Your task to perform on an android device: Search for vegetarian restaurants on Maps Image 0: 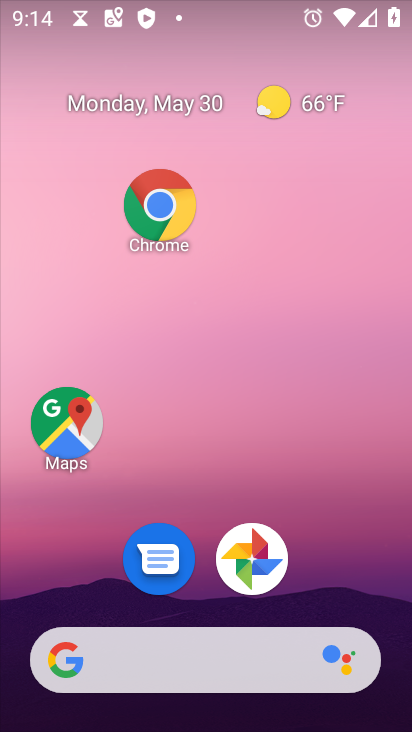
Step 0: drag from (312, 694) to (212, 230)
Your task to perform on an android device: Search for vegetarian restaurants on Maps Image 1: 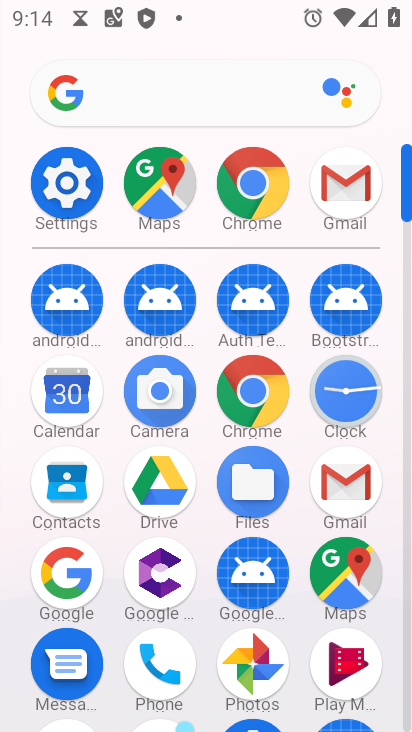
Step 1: click (339, 599)
Your task to perform on an android device: Search for vegetarian restaurants on Maps Image 2: 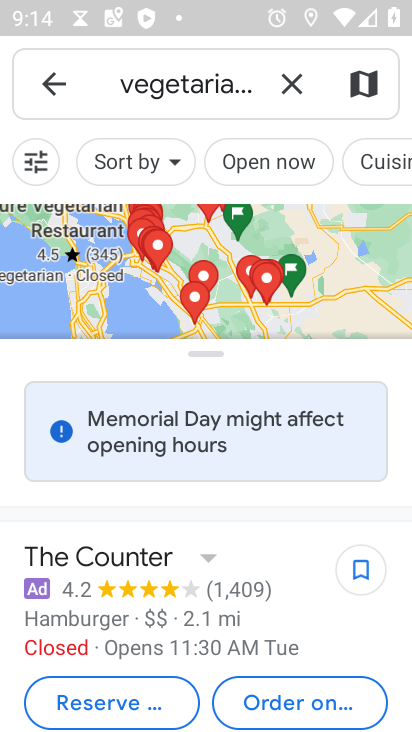
Step 2: press back button
Your task to perform on an android device: Search for vegetarian restaurants on Maps Image 3: 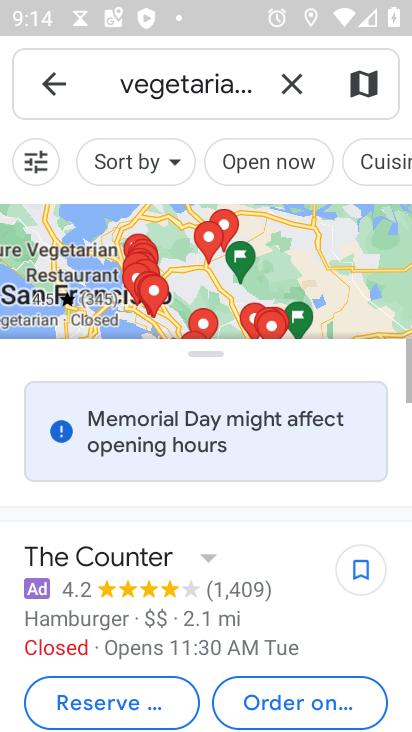
Step 3: press back button
Your task to perform on an android device: Search for vegetarian restaurants on Maps Image 4: 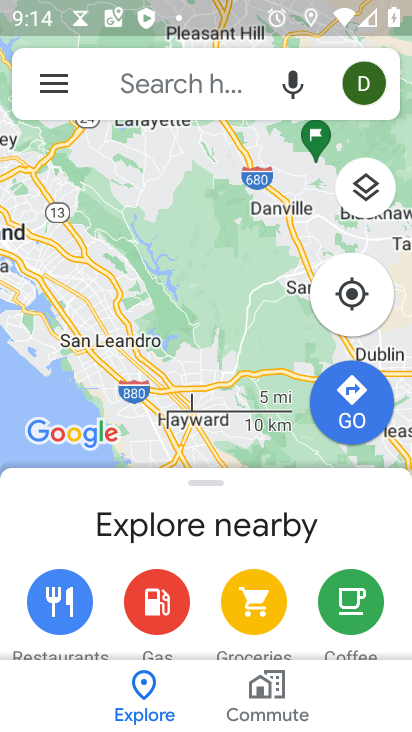
Step 4: press back button
Your task to perform on an android device: Search for vegetarian restaurants on Maps Image 5: 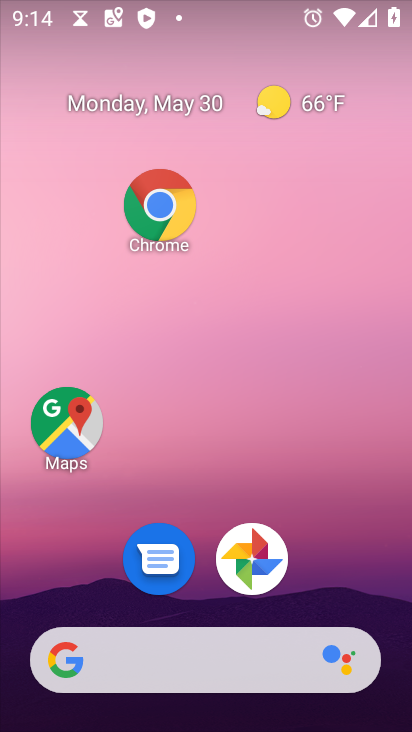
Step 5: drag from (182, 486) to (126, 125)
Your task to perform on an android device: Search for vegetarian restaurants on Maps Image 6: 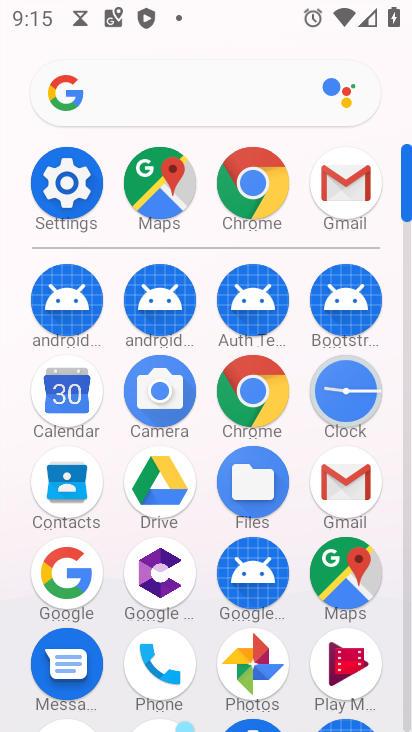
Step 6: click (256, 182)
Your task to perform on an android device: Search for vegetarian restaurants on Maps Image 7: 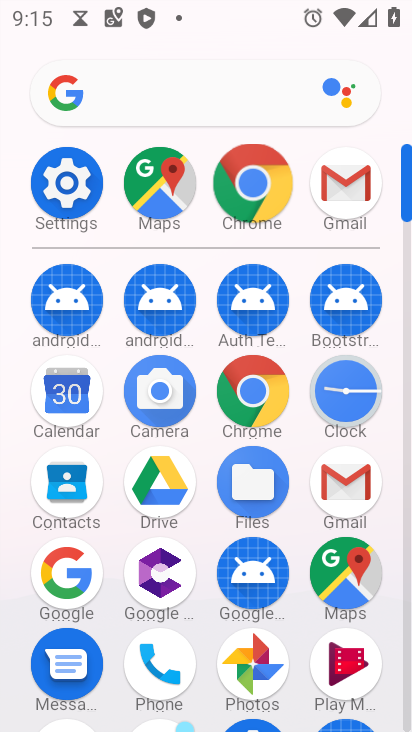
Step 7: click (255, 183)
Your task to perform on an android device: Search for vegetarian restaurants on Maps Image 8: 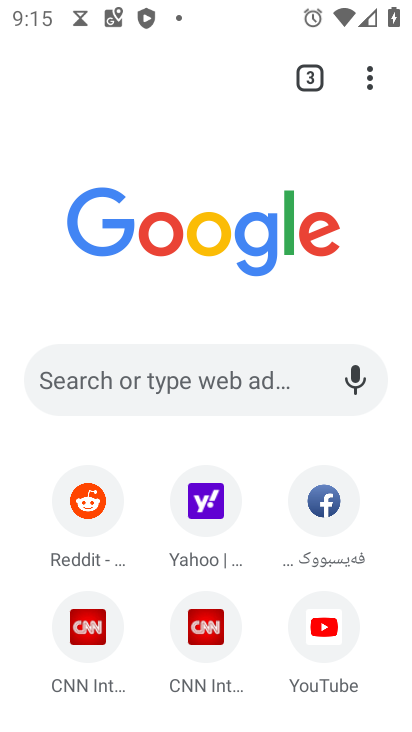
Step 8: press back button
Your task to perform on an android device: Search for vegetarian restaurants on Maps Image 9: 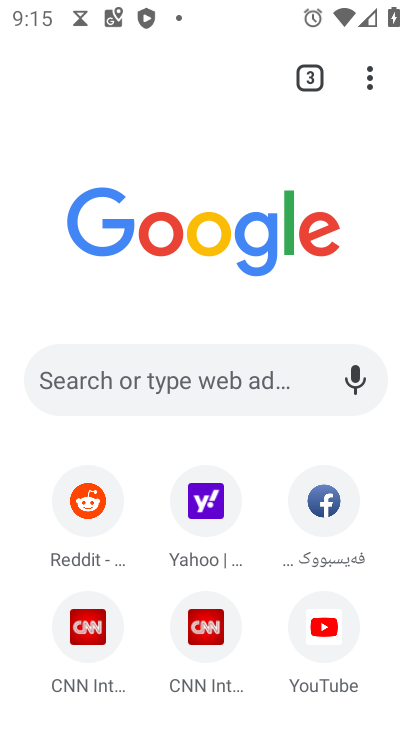
Step 9: press back button
Your task to perform on an android device: Search for vegetarian restaurants on Maps Image 10: 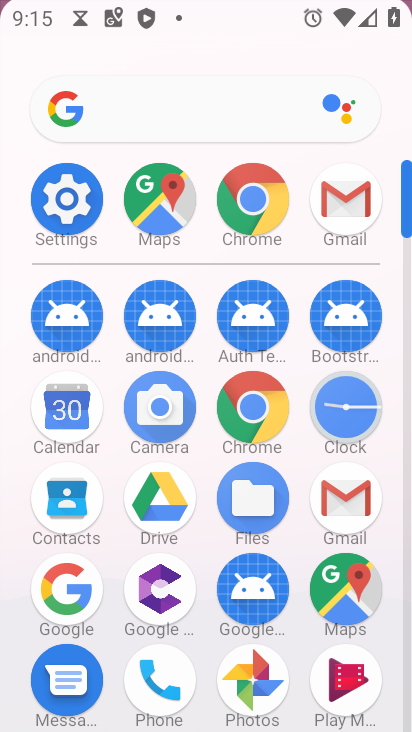
Step 10: press back button
Your task to perform on an android device: Search for vegetarian restaurants on Maps Image 11: 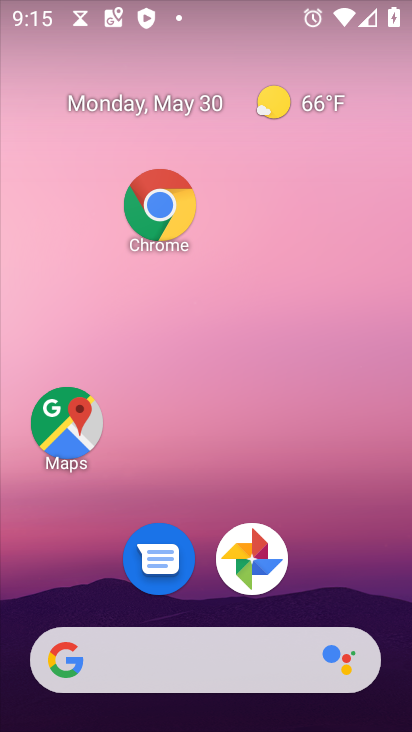
Step 11: press home button
Your task to perform on an android device: Search for vegetarian restaurants on Maps Image 12: 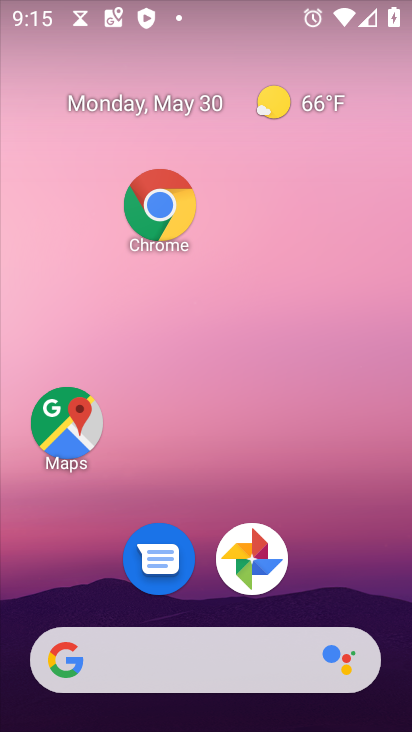
Step 12: press home button
Your task to perform on an android device: Search for vegetarian restaurants on Maps Image 13: 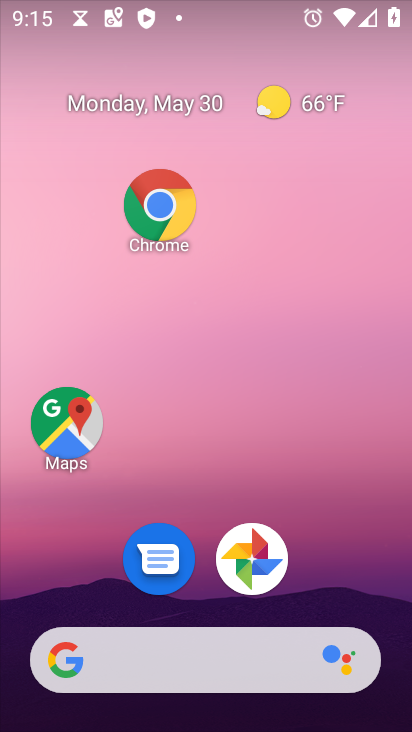
Step 13: drag from (324, 701) to (249, 13)
Your task to perform on an android device: Search for vegetarian restaurants on Maps Image 14: 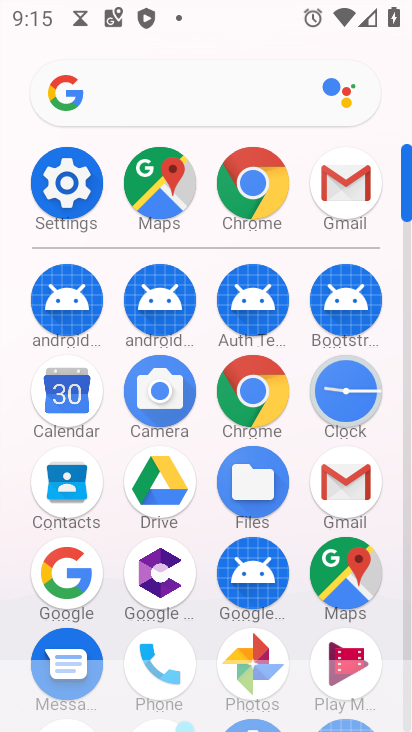
Step 14: click (338, 582)
Your task to perform on an android device: Search for vegetarian restaurants on Maps Image 15: 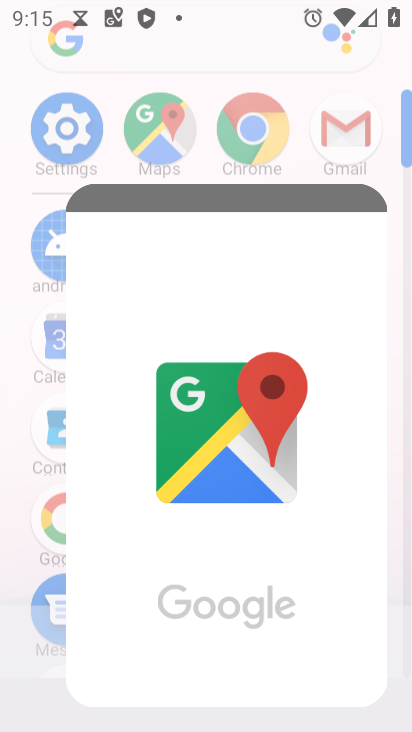
Step 15: click (337, 581)
Your task to perform on an android device: Search for vegetarian restaurants on Maps Image 16: 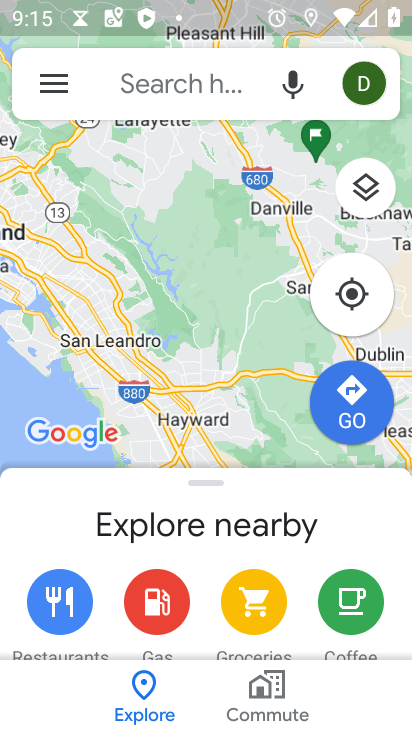
Step 16: click (129, 82)
Your task to perform on an android device: Search for vegetarian restaurants on Maps Image 17: 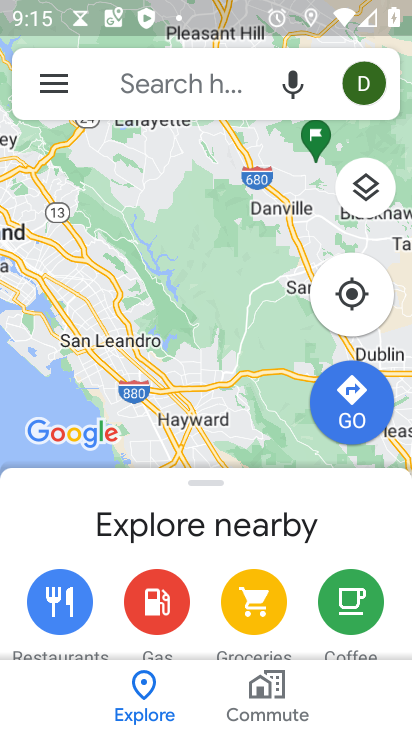
Step 17: click (129, 82)
Your task to perform on an android device: Search for vegetarian restaurants on Maps Image 18: 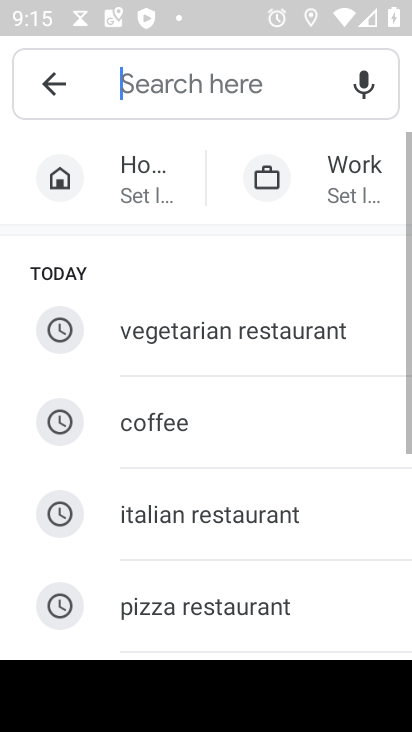
Step 18: click (120, 91)
Your task to perform on an android device: Search for vegetarian restaurants on Maps Image 19: 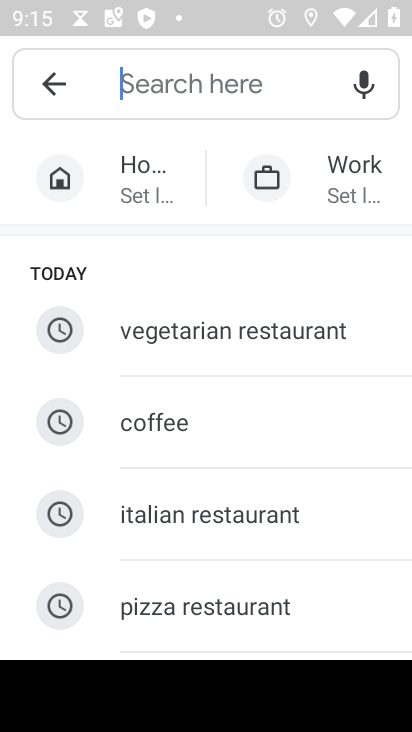
Step 19: click (184, 325)
Your task to perform on an android device: Search for vegetarian restaurants on Maps Image 20: 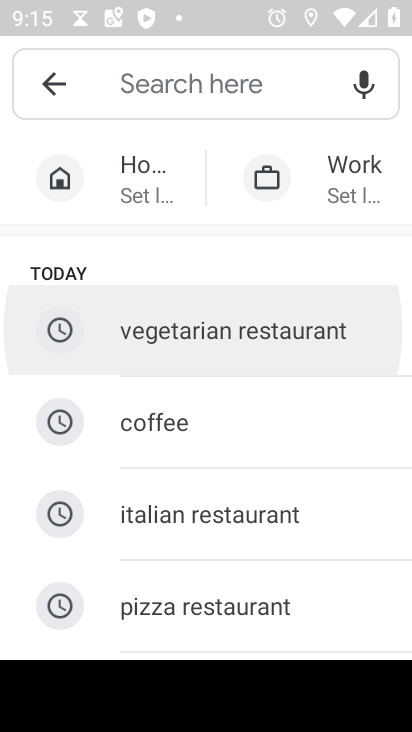
Step 20: click (184, 326)
Your task to perform on an android device: Search for vegetarian restaurants on Maps Image 21: 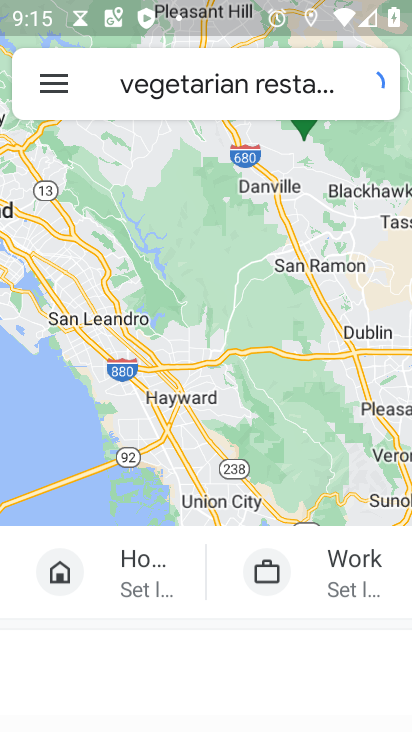
Step 21: click (184, 327)
Your task to perform on an android device: Search for vegetarian restaurants on Maps Image 22: 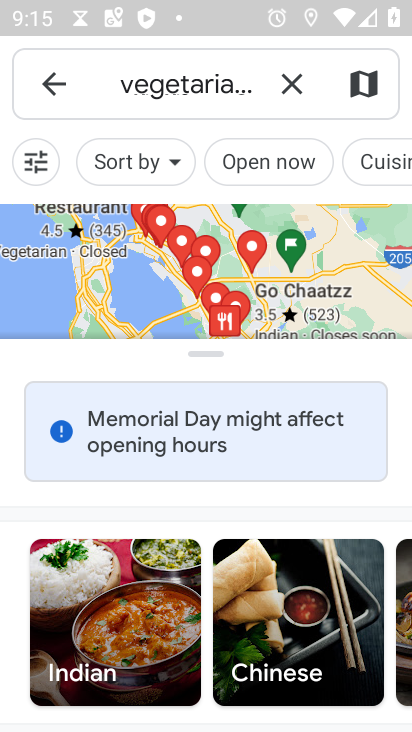
Step 22: task complete